Your task to perform on an android device: Clear the shopping cart on target. Add rayovac triple a to the cart on target, then select checkout. Image 0: 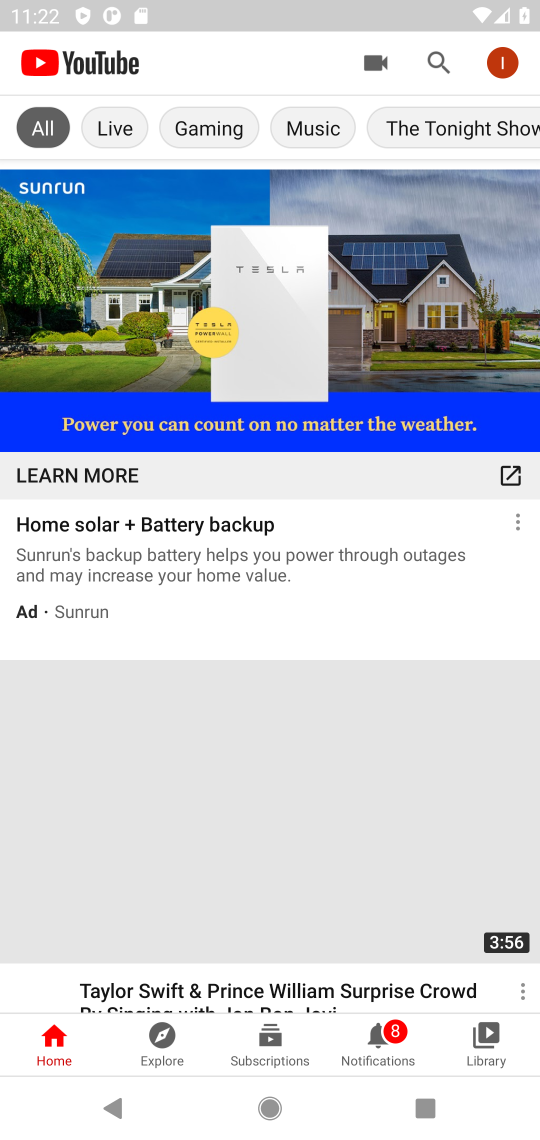
Step 0: press home button
Your task to perform on an android device: Clear the shopping cart on target. Add rayovac triple a to the cart on target, then select checkout. Image 1: 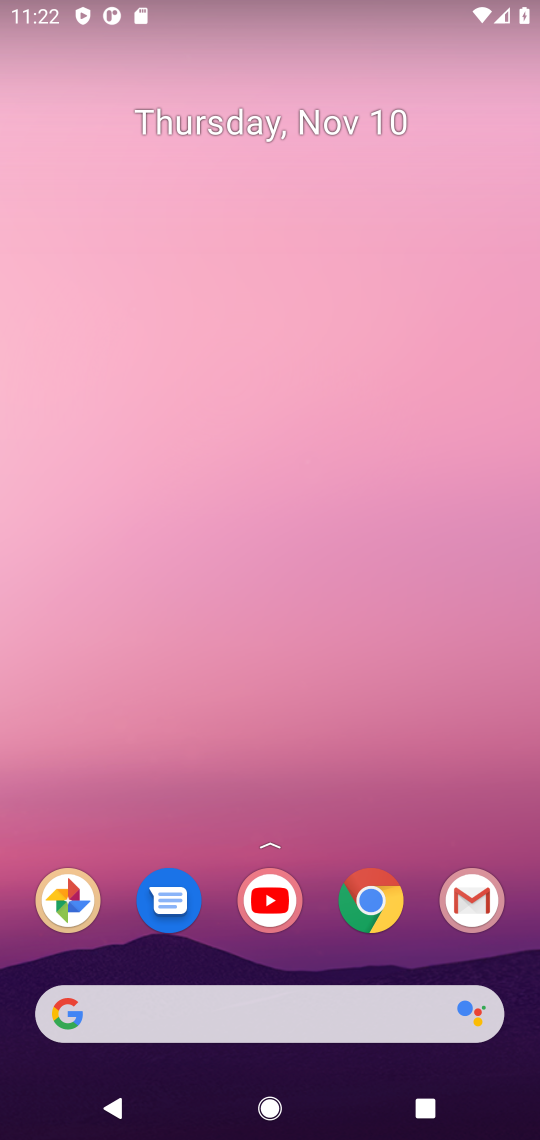
Step 1: click (367, 889)
Your task to perform on an android device: Clear the shopping cart on target. Add rayovac triple a to the cart on target, then select checkout. Image 2: 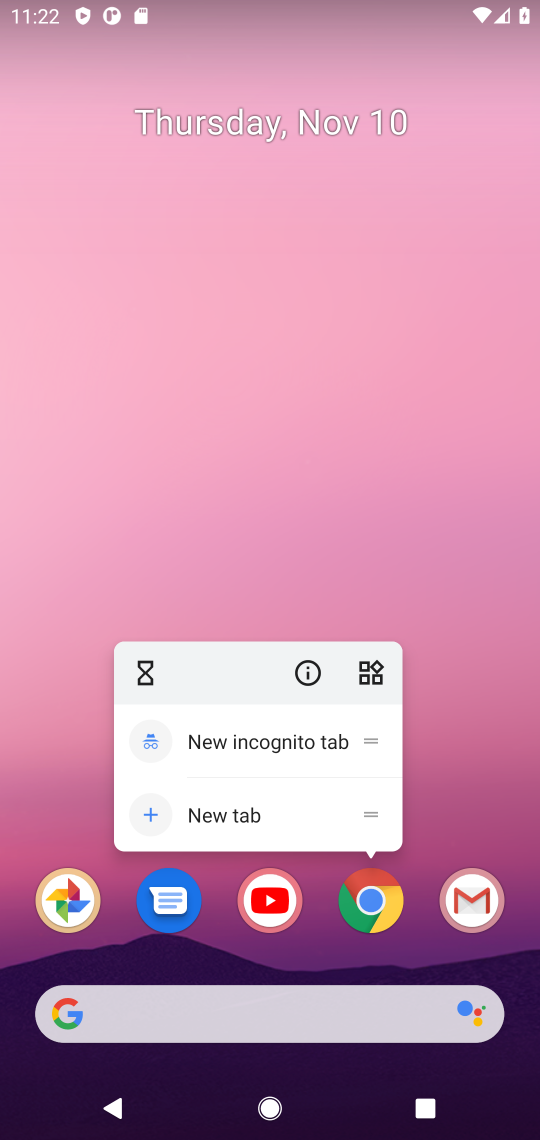
Step 2: click (373, 910)
Your task to perform on an android device: Clear the shopping cart on target. Add rayovac triple a to the cart on target, then select checkout. Image 3: 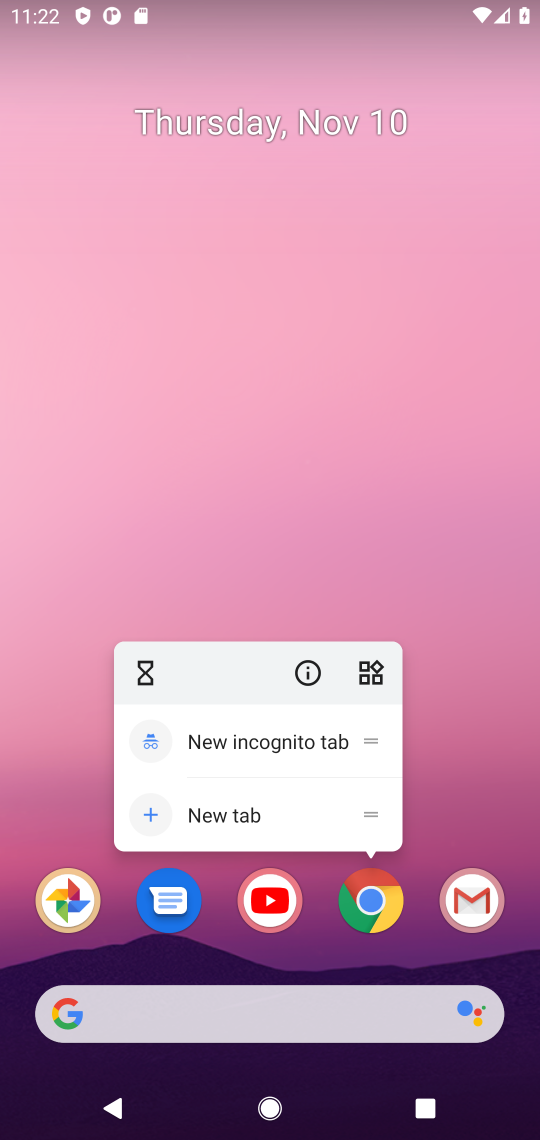
Step 3: click (373, 911)
Your task to perform on an android device: Clear the shopping cart on target. Add rayovac triple a to the cart on target, then select checkout. Image 4: 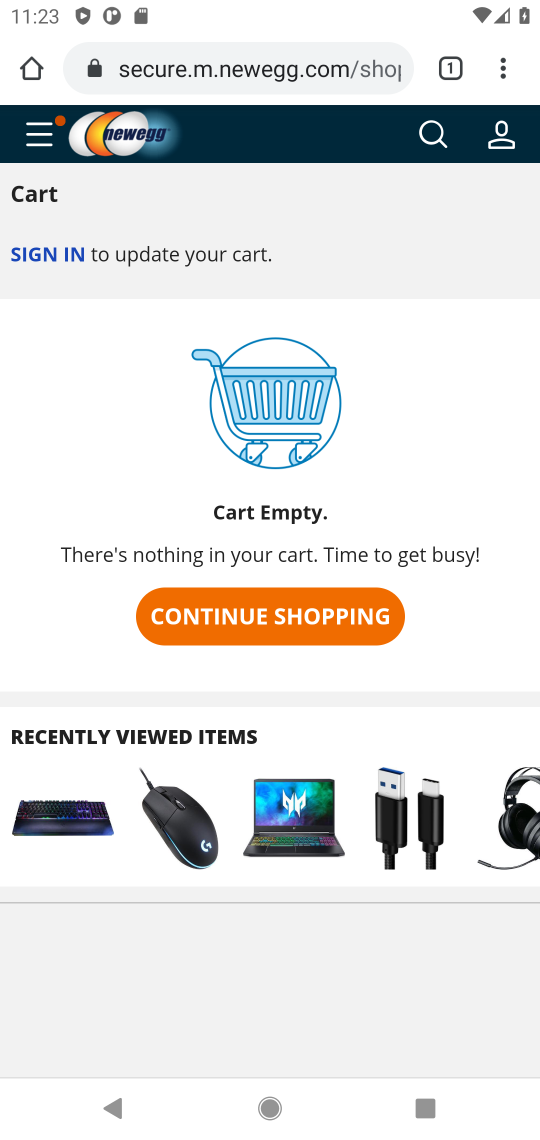
Step 4: click (376, 62)
Your task to perform on an android device: Clear the shopping cart on target. Add rayovac triple a to the cart on target, then select checkout. Image 5: 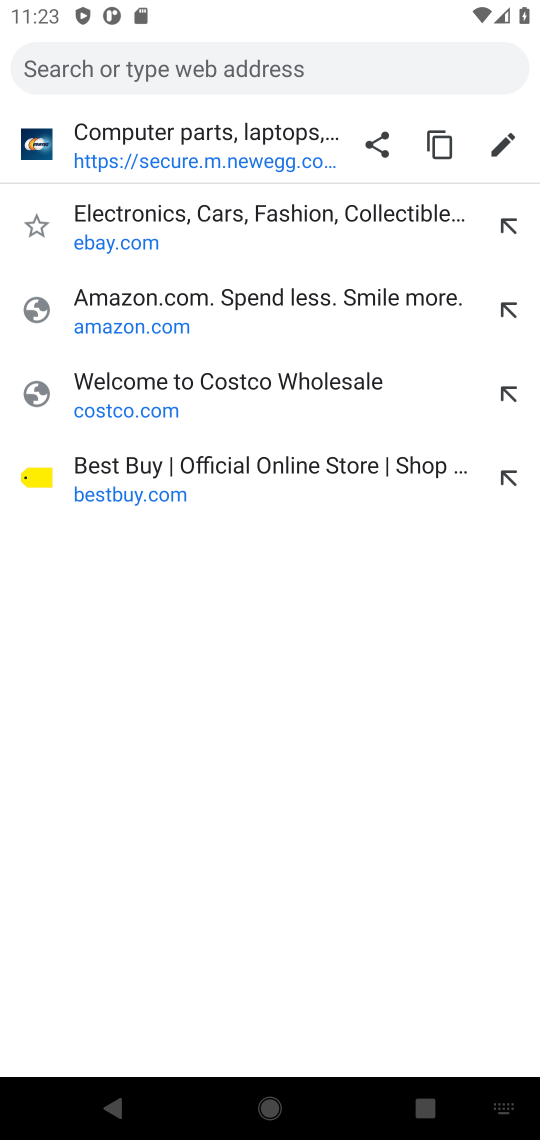
Step 5: type "target"
Your task to perform on an android device: Clear the shopping cart on target. Add rayovac triple a to the cart on target, then select checkout. Image 6: 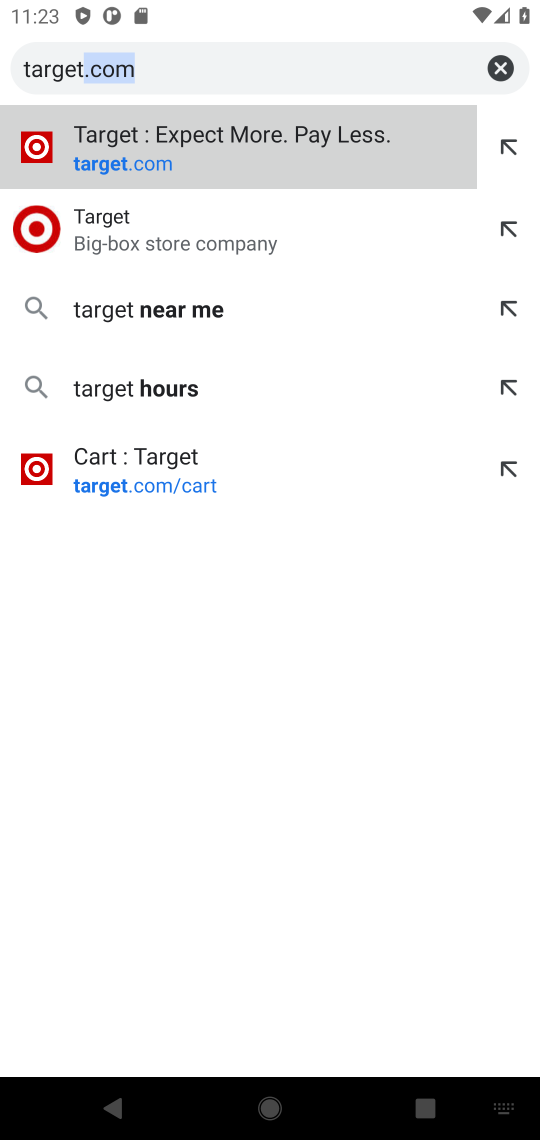
Step 6: press enter
Your task to perform on an android device: Clear the shopping cart on target. Add rayovac triple a to the cart on target, then select checkout. Image 7: 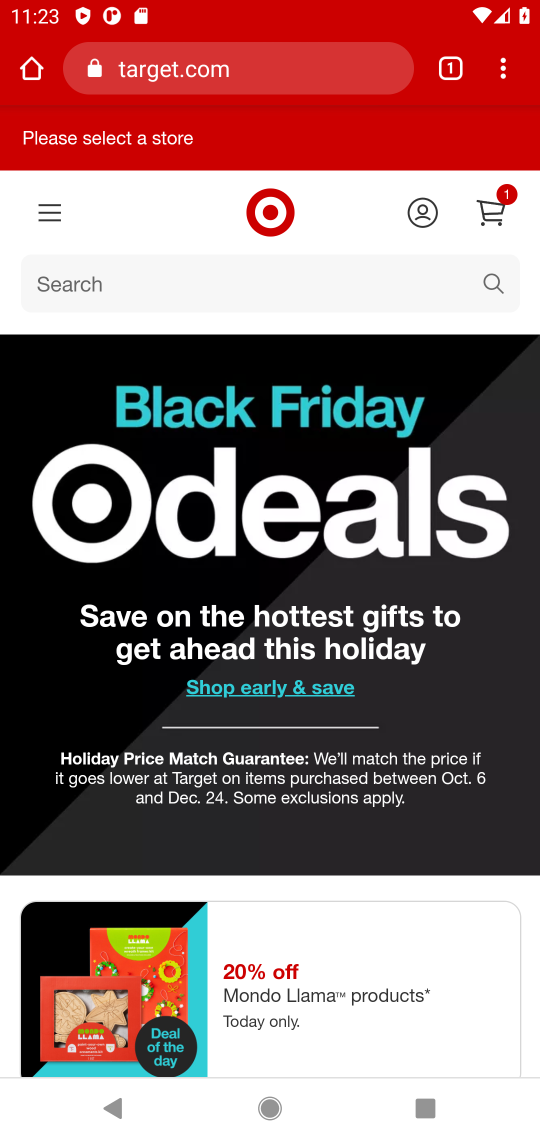
Step 7: click (499, 197)
Your task to perform on an android device: Clear the shopping cart on target. Add rayovac triple a to the cart on target, then select checkout. Image 8: 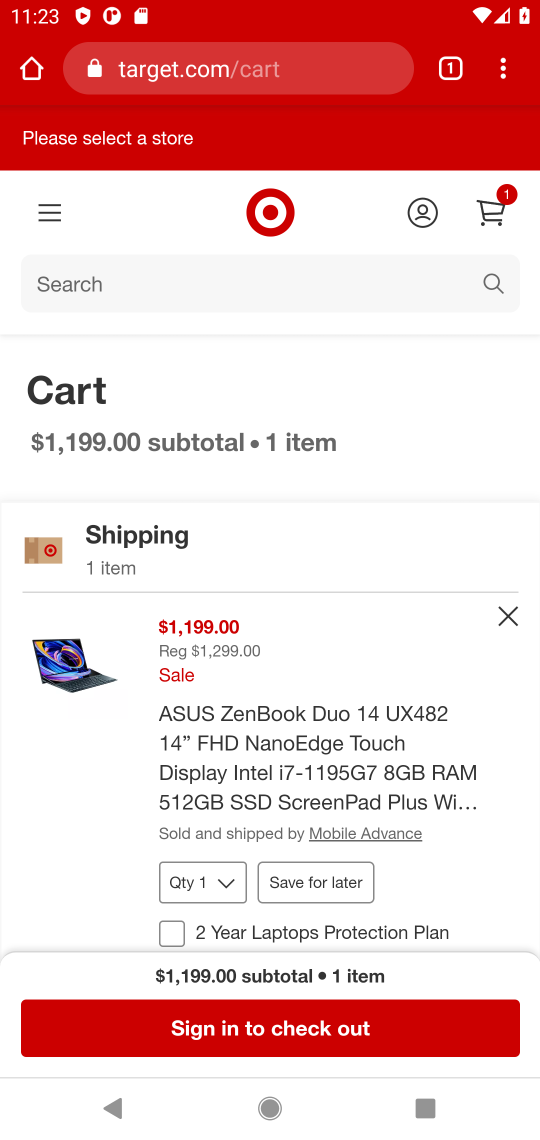
Step 8: click (502, 612)
Your task to perform on an android device: Clear the shopping cart on target. Add rayovac triple a to the cart on target, then select checkout. Image 9: 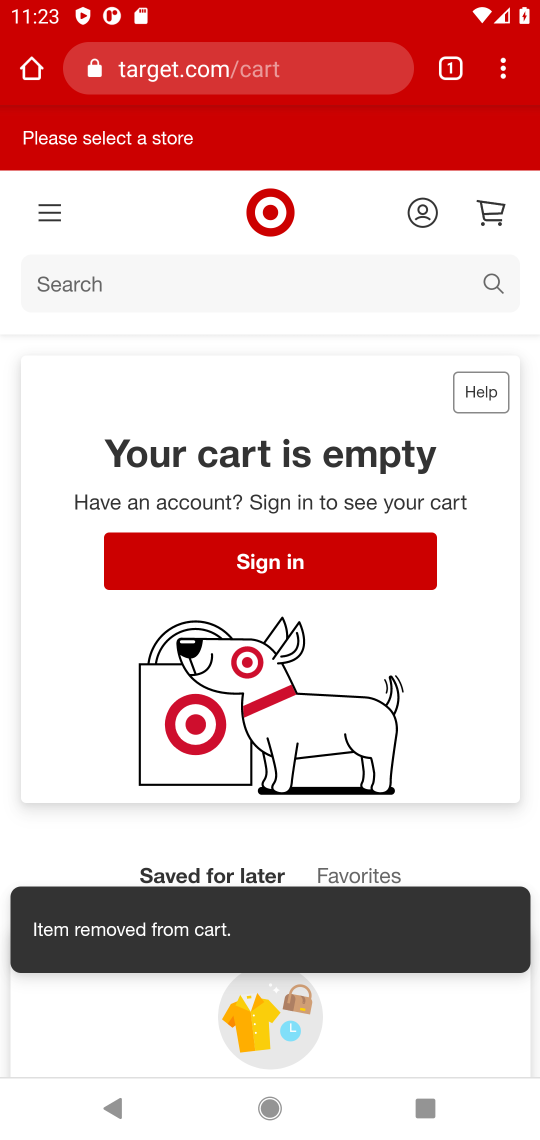
Step 9: click (101, 286)
Your task to perform on an android device: Clear the shopping cart on target. Add rayovac triple a to the cart on target, then select checkout. Image 10: 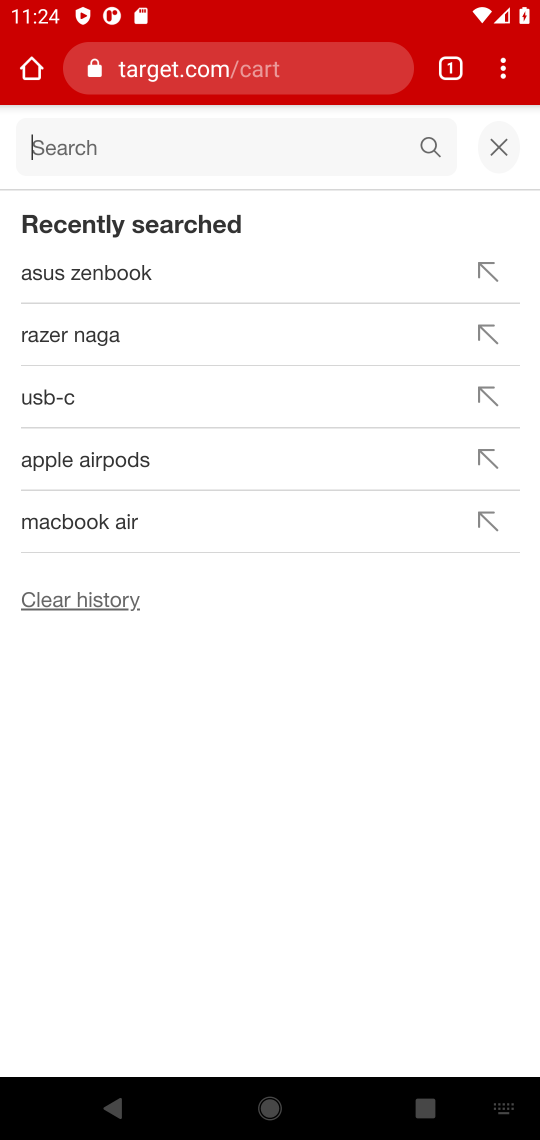
Step 10: type "rayovac triple a"
Your task to perform on an android device: Clear the shopping cart on target. Add rayovac triple a to the cart on target, then select checkout. Image 11: 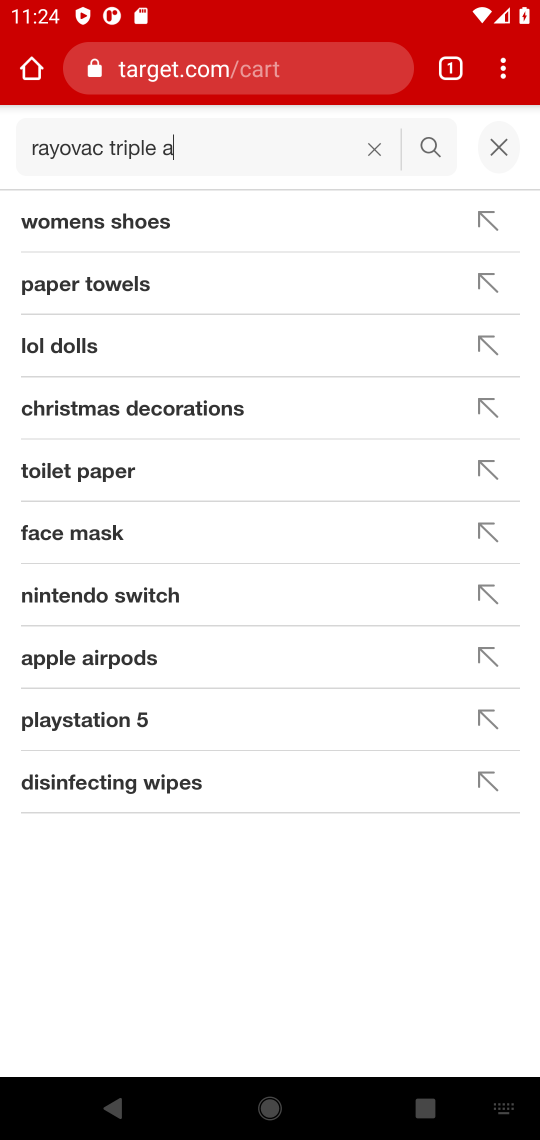
Step 11: press enter
Your task to perform on an android device: Clear the shopping cart on target. Add rayovac triple a to the cart on target, then select checkout. Image 12: 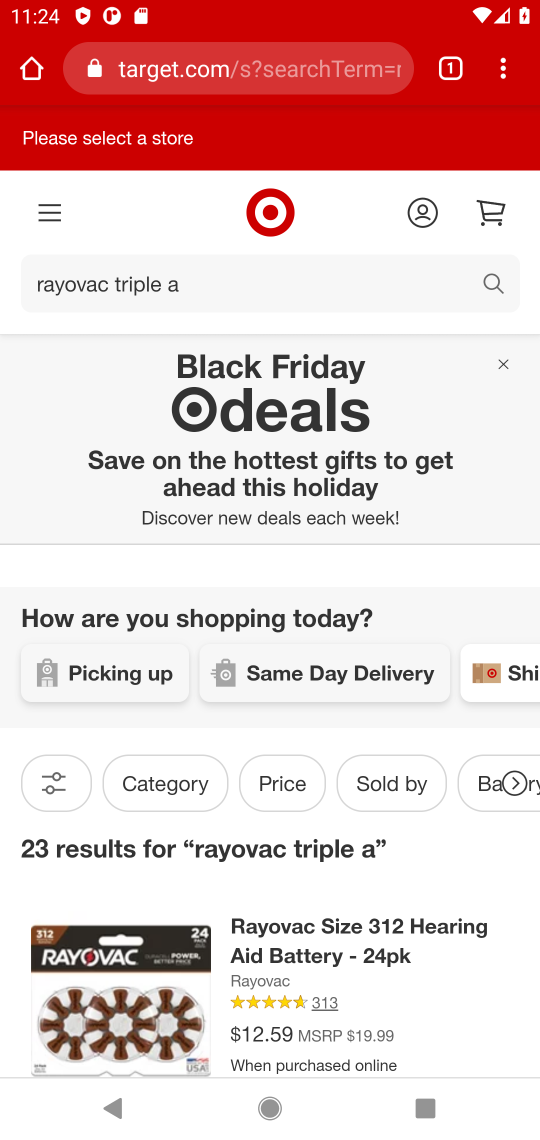
Step 12: task complete